Your task to perform on an android device: turn off translation in the chrome app Image 0: 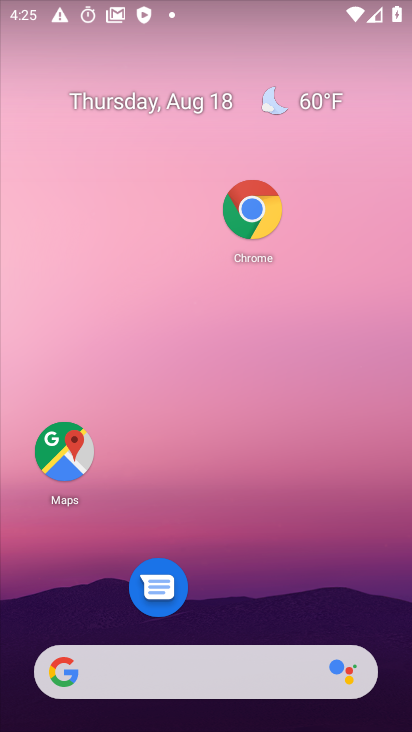
Step 0: press home button
Your task to perform on an android device: turn off translation in the chrome app Image 1: 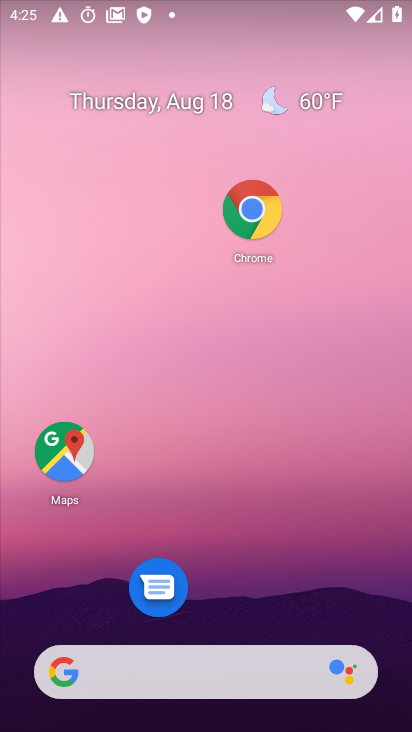
Step 1: drag from (303, 571) to (327, 49)
Your task to perform on an android device: turn off translation in the chrome app Image 2: 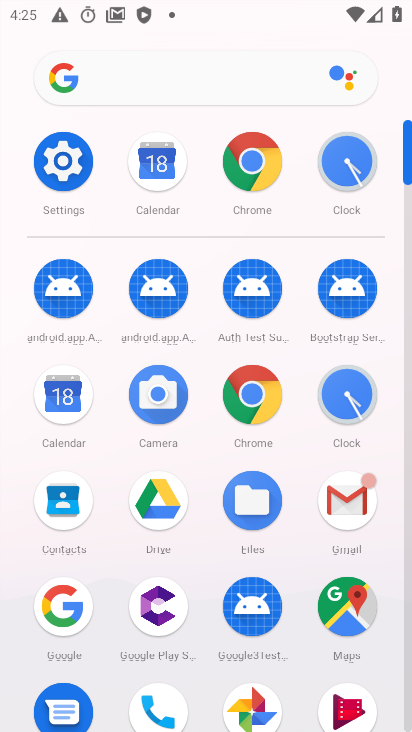
Step 2: click (248, 386)
Your task to perform on an android device: turn off translation in the chrome app Image 3: 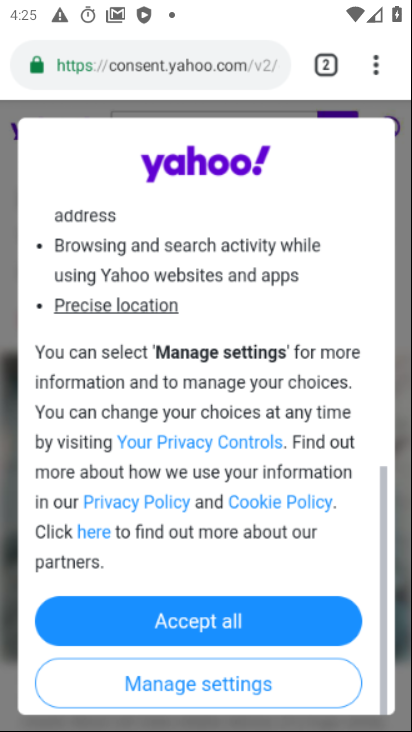
Step 3: drag from (370, 60) to (207, 606)
Your task to perform on an android device: turn off translation in the chrome app Image 4: 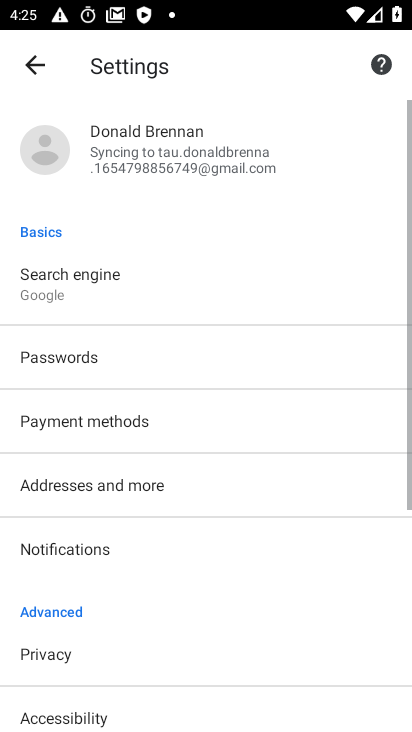
Step 4: drag from (127, 684) to (196, 262)
Your task to perform on an android device: turn off translation in the chrome app Image 5: 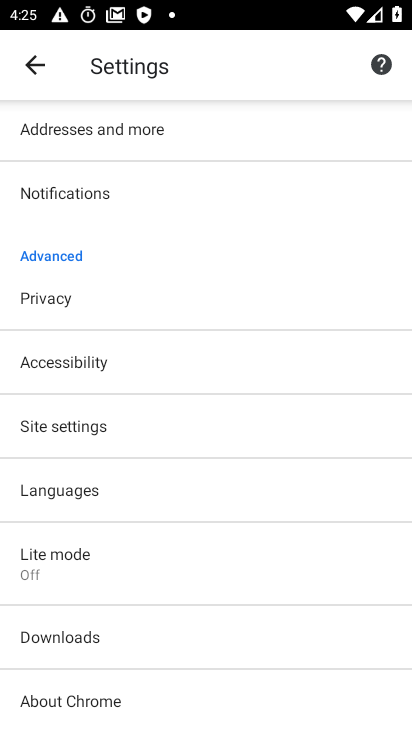
Step 5: click (66, 489)
Your task to perform on an android device: turn off translation in the chrome app Image 6: 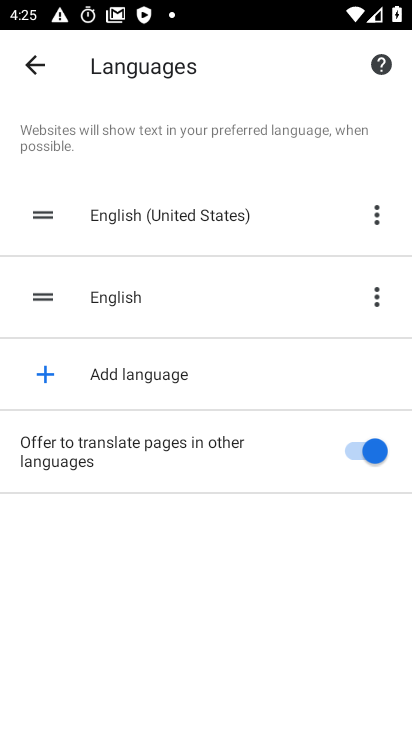
Step 6: click (288, 445)
Your task to perform on an android device: turn off translation in the chrome app Image 7: 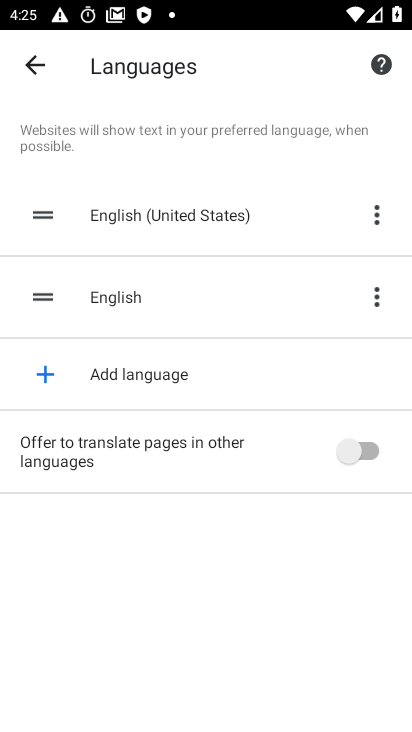
Step 7: task complete